Your task to perform on an android device: Open Amazon Image 0: 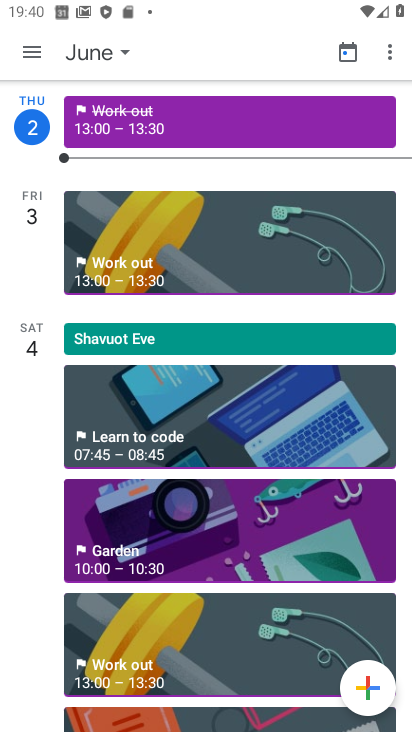
Step 0: press home button
Your task to perform on an android device: Open Amazon Image 1: 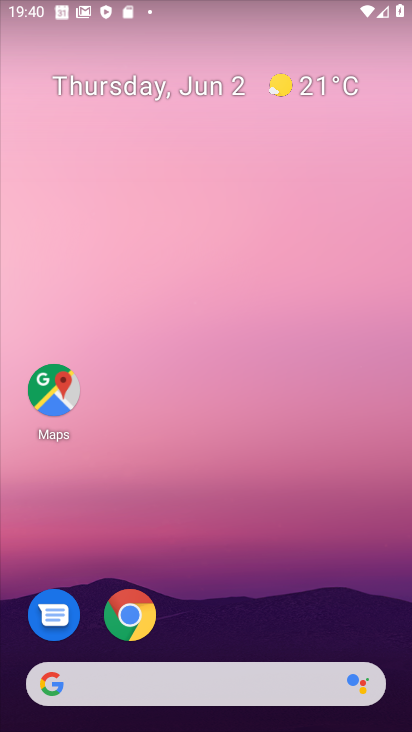
Step 1: click (227, 672)
Your task to perform on an android device: Open Amazon Image 2: 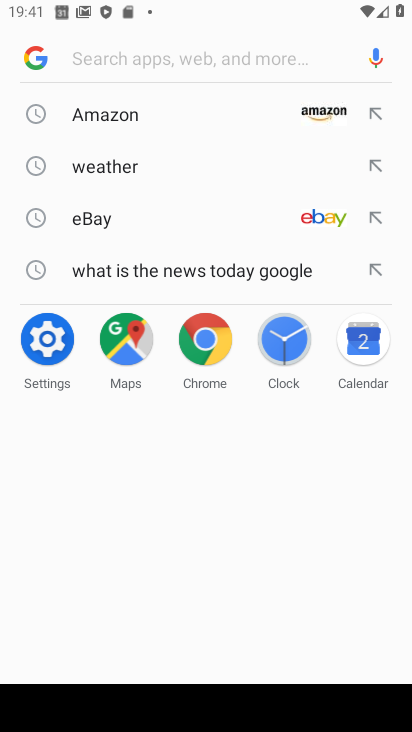
Step 2: click (119, 107)
Your task to perform on an android device: Open Amazon Image 3: 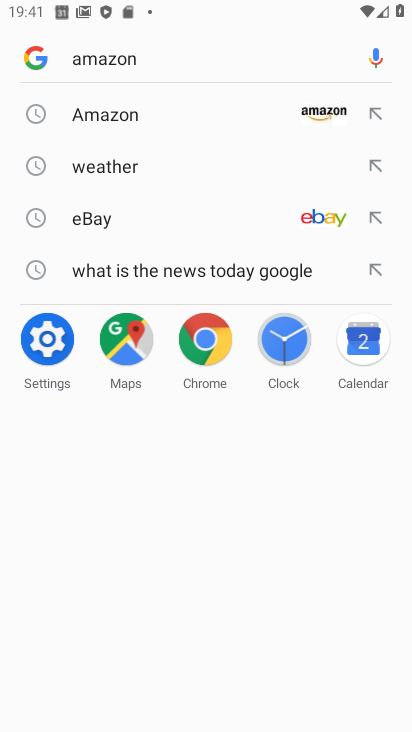
Step 3: task complete